Your task to perform on an android device: change the clock display to digital Image 0: 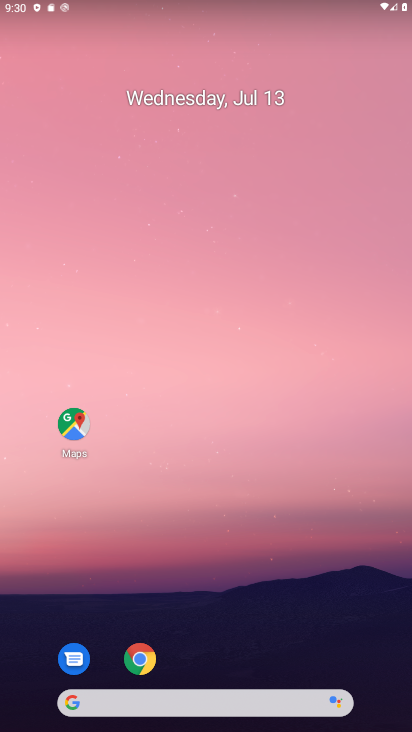
Step 0: drag from (208, 698) to (268, 129)
Your task to perform on an android device: change the clock display to digital Image 1: 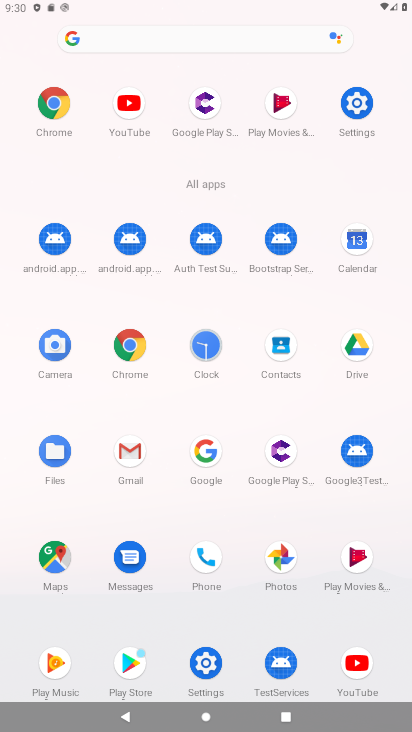
Step 1: click (202, 351)
Your task to perform on an android device: change the clock display to digital Image 2: 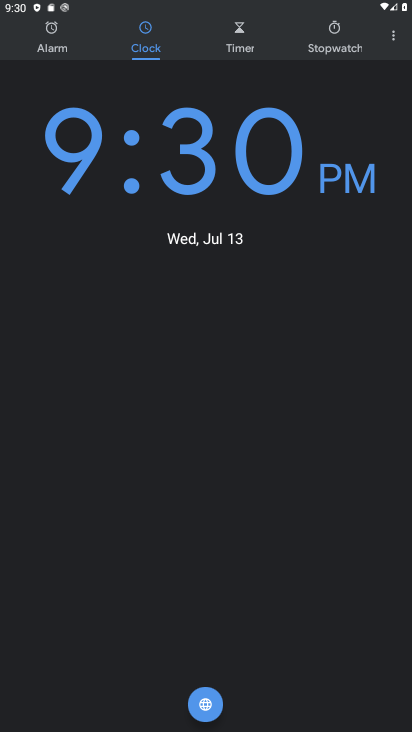
Step 2: click (395, 34)
Your task to perform on an android device: change the clock display to digital Image 3: 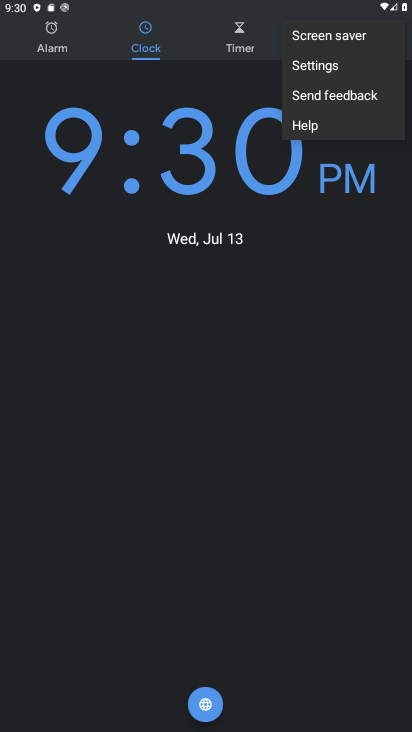
Step 3: click (345, 69)
Your task to perform on an android device: change the clock display to digital Image 4: 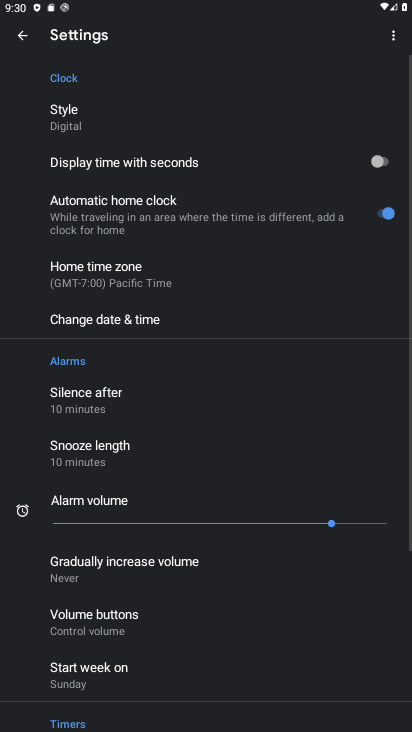
Step 4: click (119, 124)
Your task to perform on an android device: change the clock display to digital Image 5: 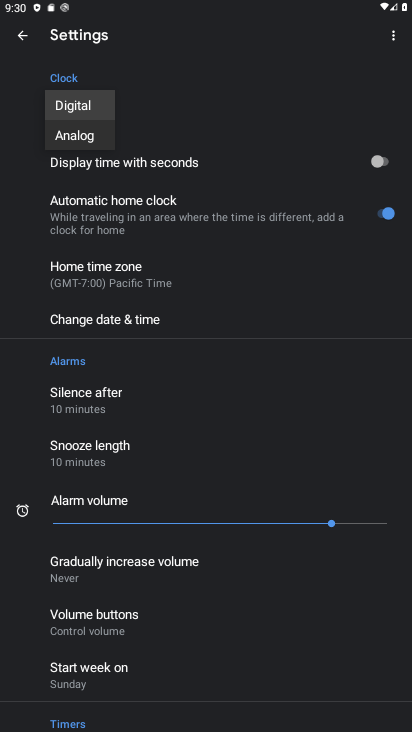
Step 5: click (81, 107)
Your task to perform on an android device: change the clock display to digital Image 6: 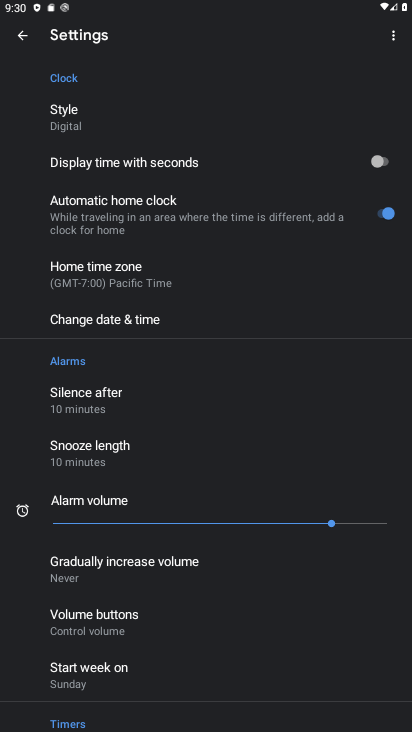
Step 6: task complete